Your task to perform on an android device: Open calendar and show me the fourth week of next month Image 0: 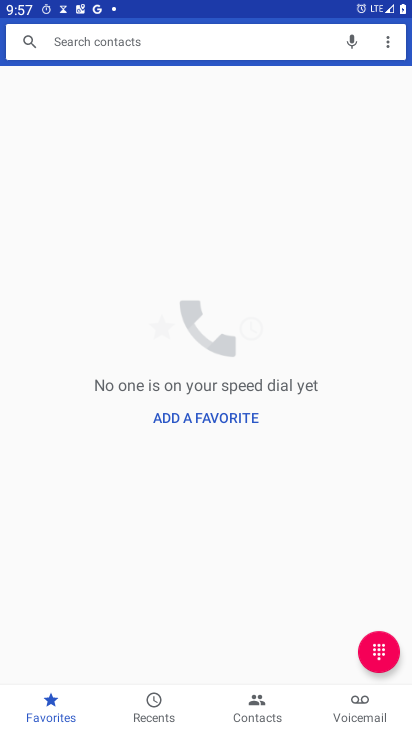
Step 0: press back button
Your task to perform on an android device: Open calendar and show me the fourth week of next month Image 1: 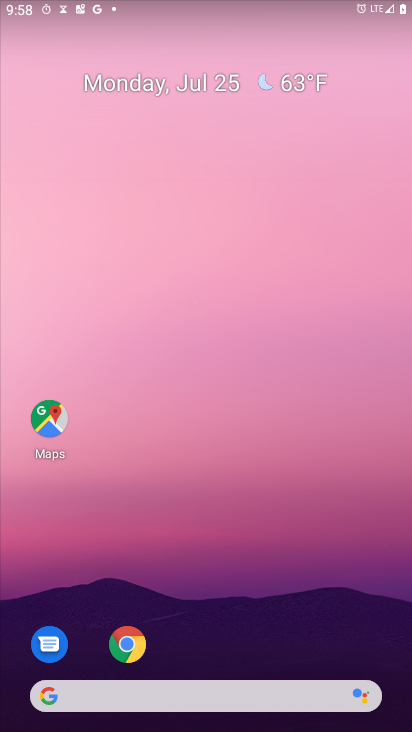
Step 1: drag from (89, 474) to (119, 38)
Your task to perform on an android device: Open calendar and show me the fourth week of next month Image 2: 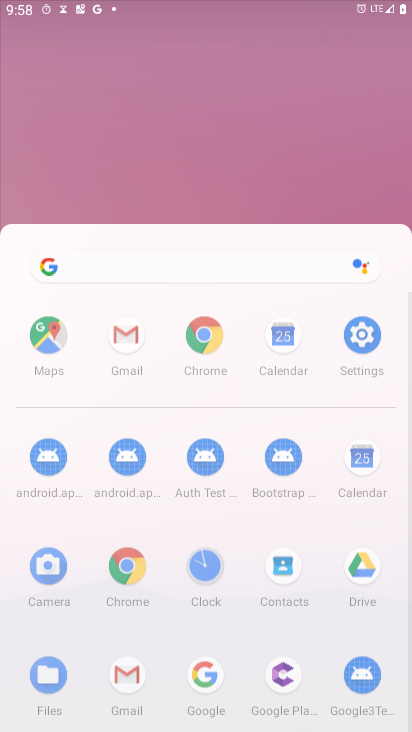
Step 2: drag from (191, 548) to (240, 152)
Your task to perform on an android device: Open calendar and show me the fourth week of next month Image 3: 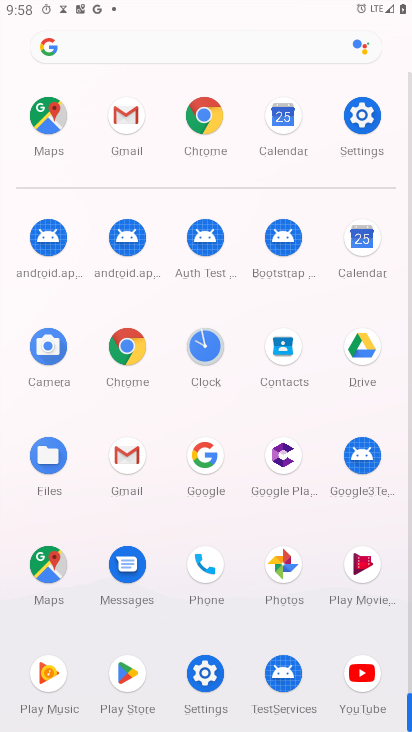
Step 3: drag from (256, 556) to (261, 265)
Your task to perform on an android device: Open calendar and show me the fourth week of next month Image 4: 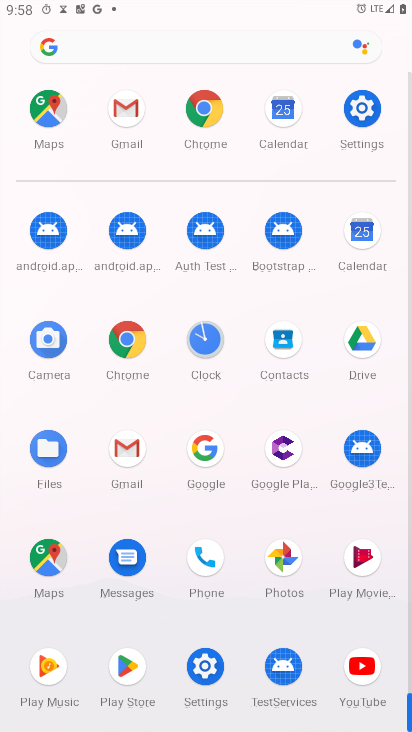
Step 4: click (358, 235)
Your task to perform on an android device: Open calendar and show me the fourth week of next month Image 5: 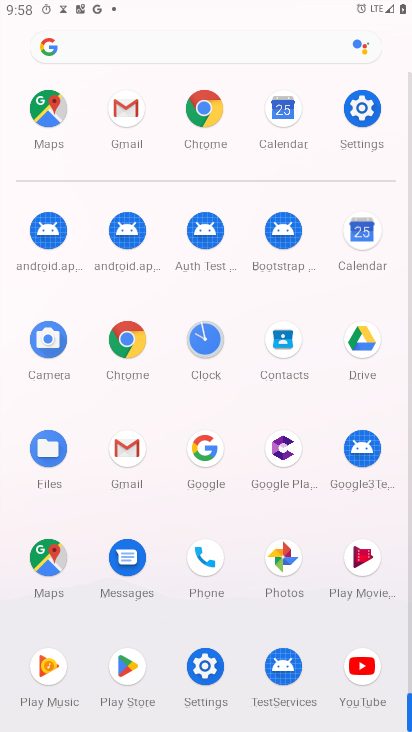
Step 5: click (358, 235)
Your task to perform on an android device: Open calendar and show me the fourth week of next month Image 6: 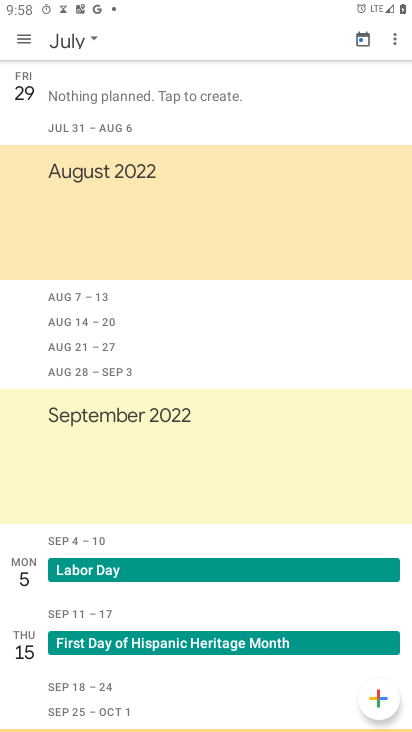
Step 6: click (94, 34)
Your task to perform on an android device: Open calendar and show me the fourth week of next month Image 7: 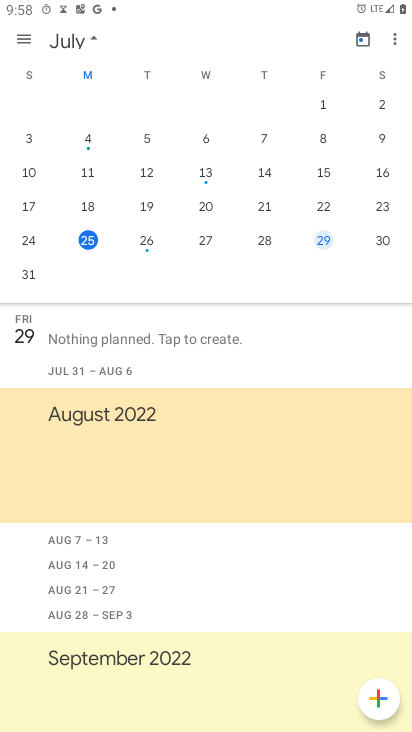
Step 7: drag from (207, 174) to (5, 204)
Your task to perform on an android device: Open calendar and show me the fourth week of next month Image 8: 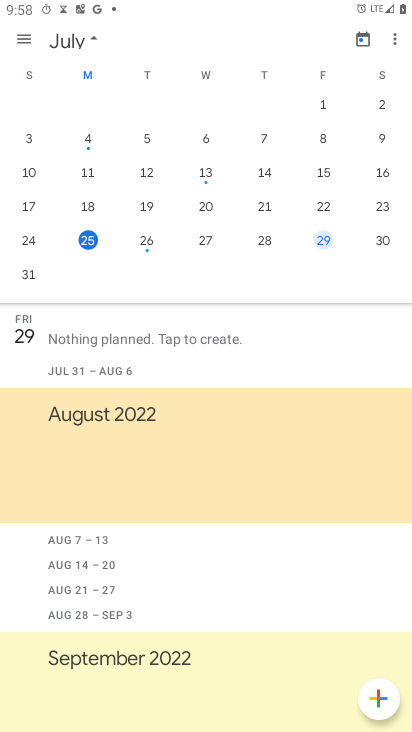
Step 8: drag from (261, 203) to (84, 189)
Your task to perform on an android device: Open calendar and show me the fourth week of next month Image 9: 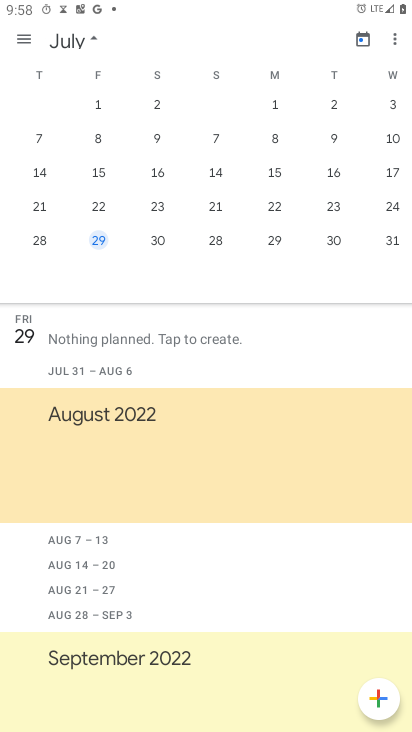
Step 9: drag from (251, 189) to (14, 146)
Your task to perform on an android device: Open calendar and show me the fourth week of next month Image 10: 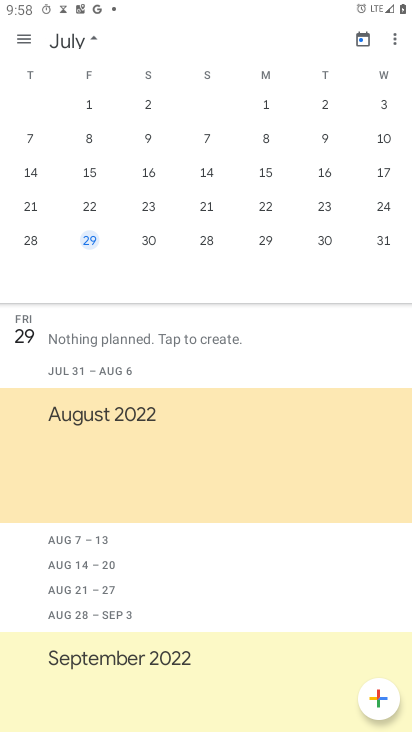
Step 10: drag from (215, 148) to (0, 143)
Your task to perform on an android device: Open calendar and show me the fourth week of next month Image 11: 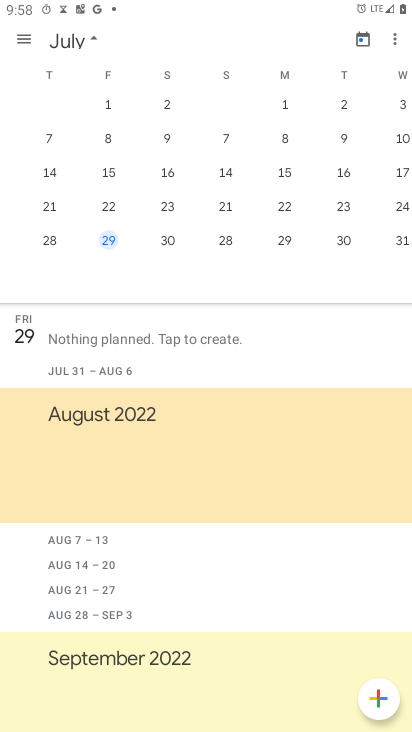
Step 11: drag from (199, 176) to (0, 182)
Your task to perform on an android device: Open calendar and show me the fourth week of next month Image 12: 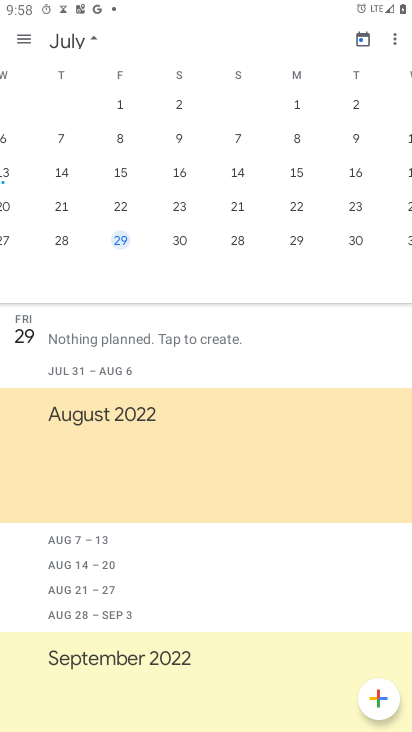
Step 12: drag from (309, 183) to (22, 194)
Your task to perform on an android device: Open calendar and show me the fourth week of next month Image 13: 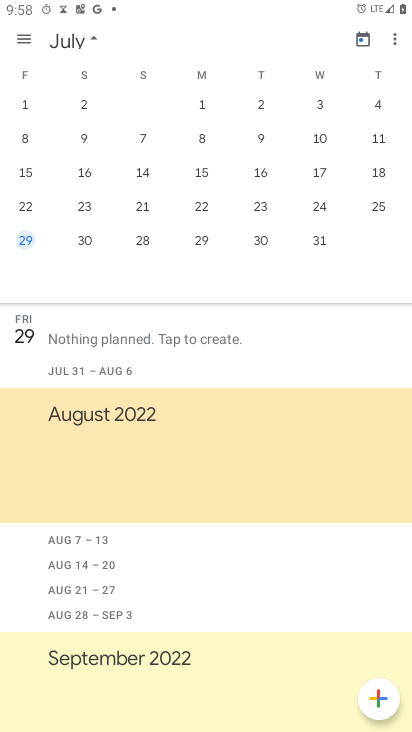
Step 13: drag from (203, 197) to (39, 207)
Your task to perform on an android device: Open calendar and show me the fourth week of next month Image 14: 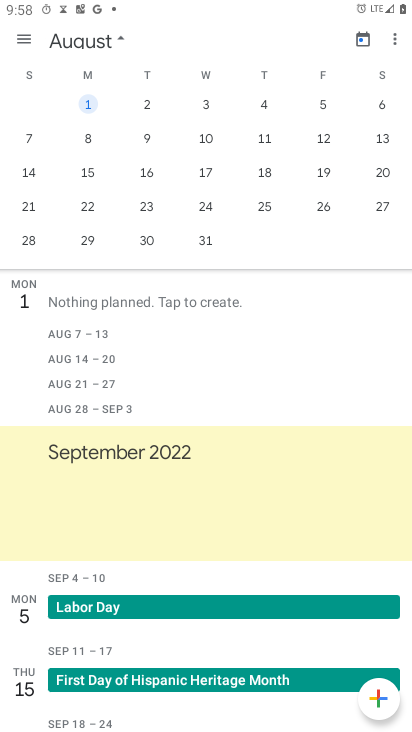
Step 14: click (146, 205)
Your task to perform on an android device: Open calendar and show me the fourth week of next month Image 15: 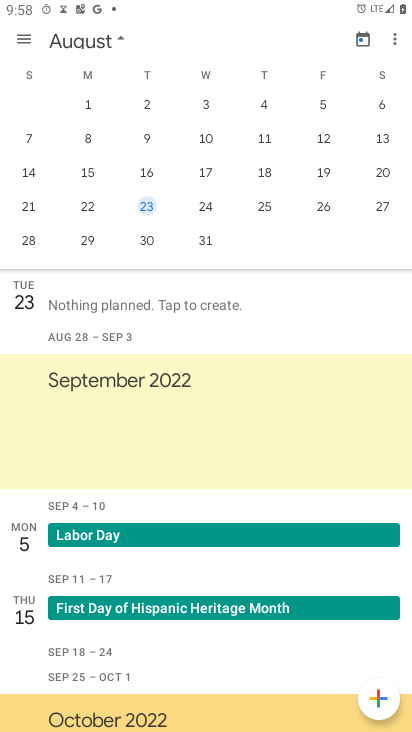
Step 15: task complete